Your task to perform on an android device: turn on wifi Image 0: 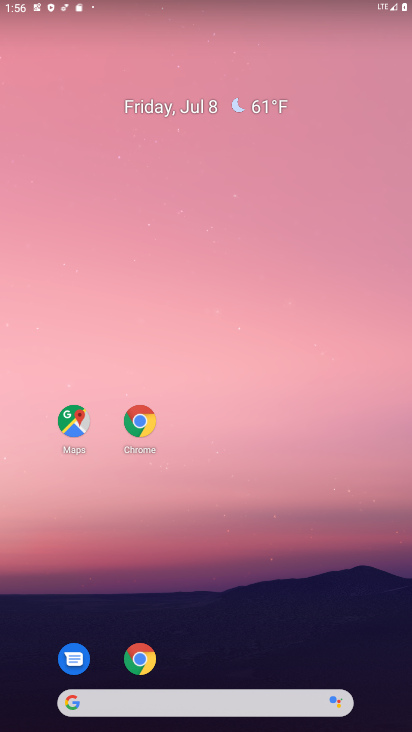
Step 0: click (224, 144)
Your task to perform on an android device: turn on wifi Image 1: 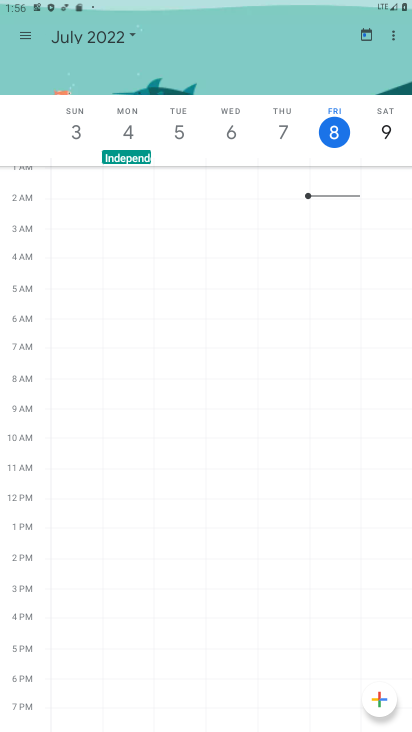
Step 1: press home button
Your task to perform on an android device: turn on wifi Image 2: 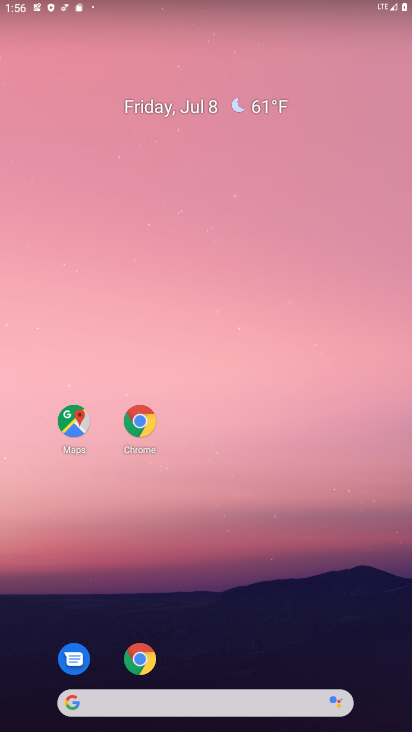
Step 2: drag from (213, 688) to (142, 170)
Your task to perform on an android device: turn on wifi Image 3: 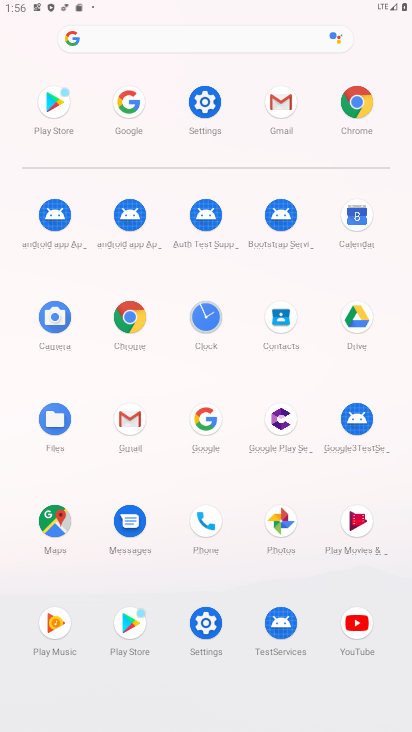
Step 3: click (213, 107)
Your task to perform on an android device: turn on wifi Image 4: 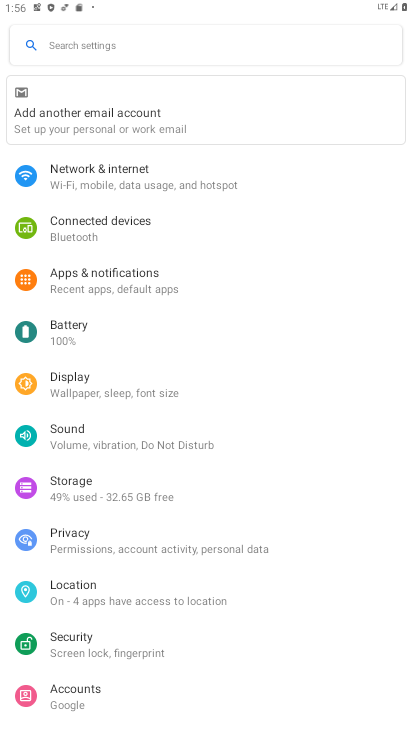
Step 4: drag from (144, 189) to (146, 311)
Your task to perform on an android device: turn on wifi Image 5: 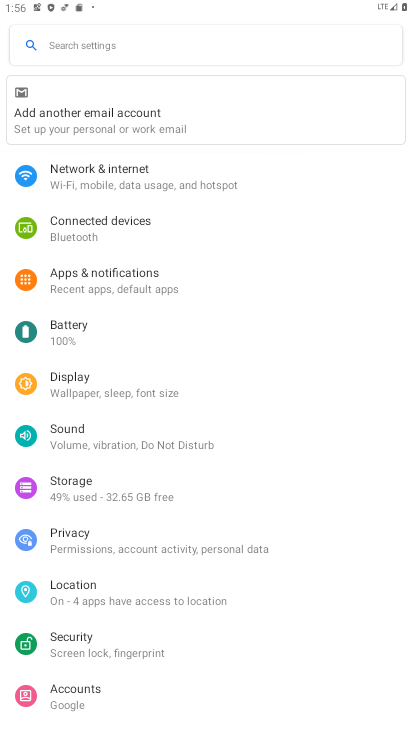
Step 5: click (113, 181)
Your task to perform on an android device: turn on wifi Image 6: 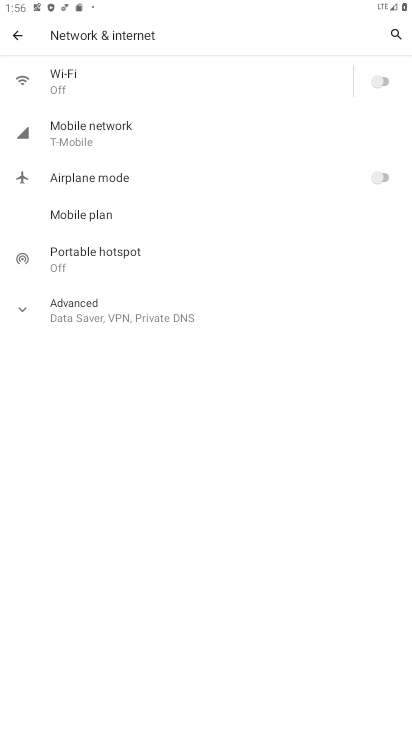
Step 6: click (55, 95)
Your task to perform on an android device: turn on wifi Image 7: 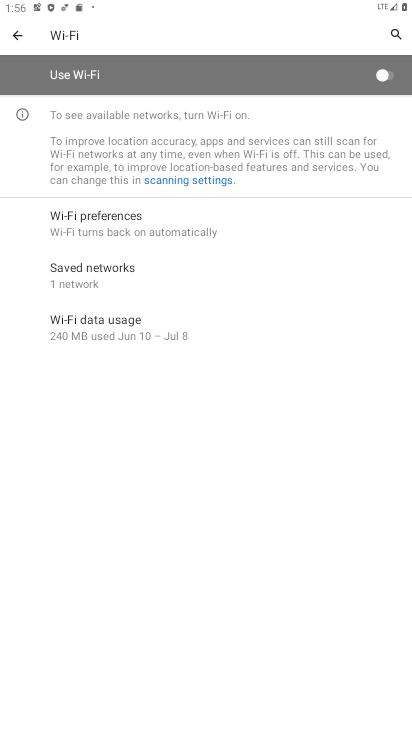
Step 7: click (391, 76)
Your task to perform on an android device: turn on wifi Image 8: 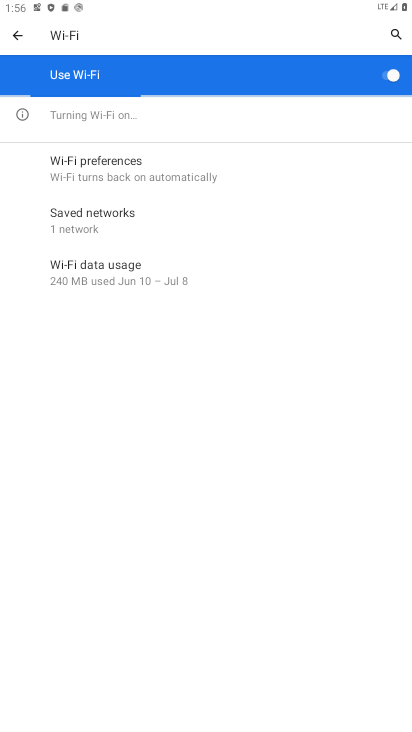
Step 8: task complete